Your task to perform on an android device: Find coffee shops on Maps Image 0: 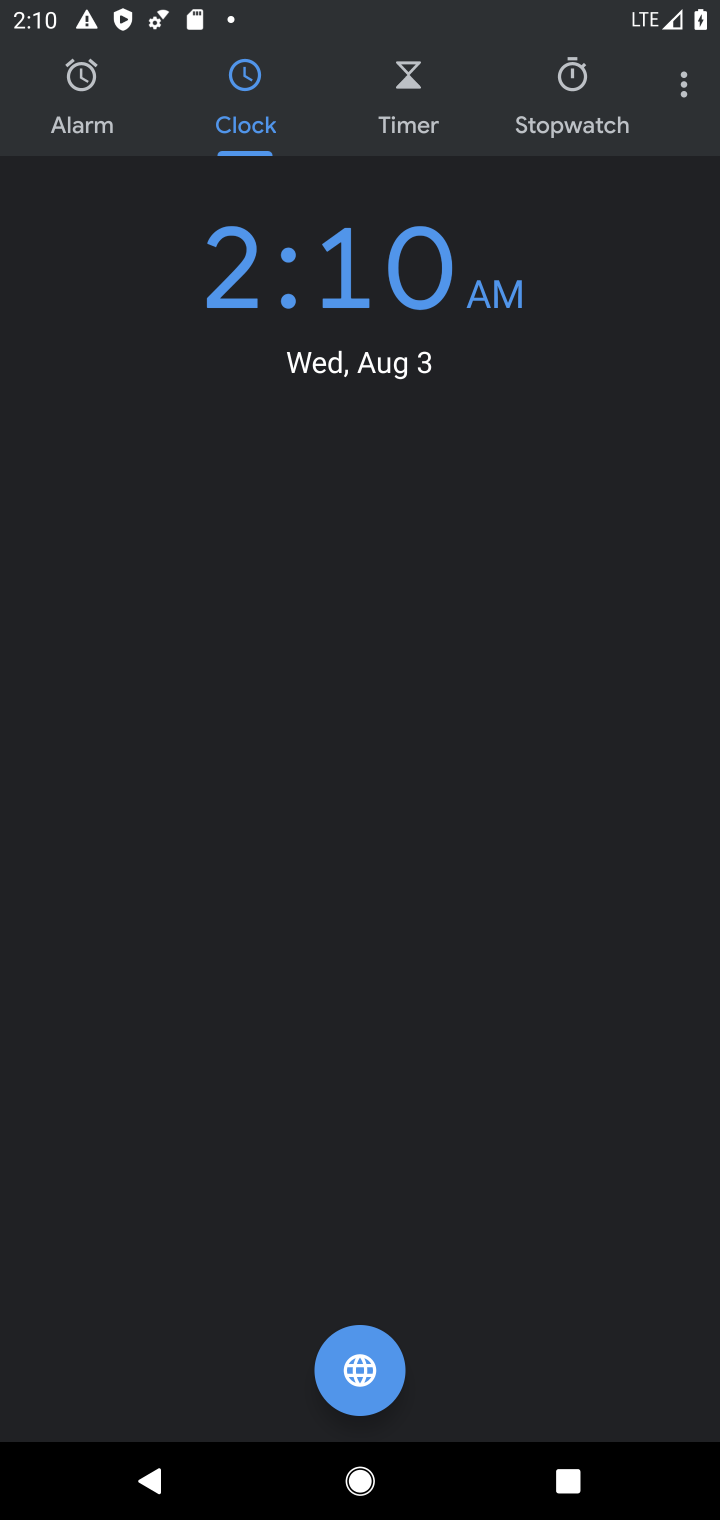
Step 0: press back button
Your task to perform on an android device: Find coffee shops on Maps Image 1: 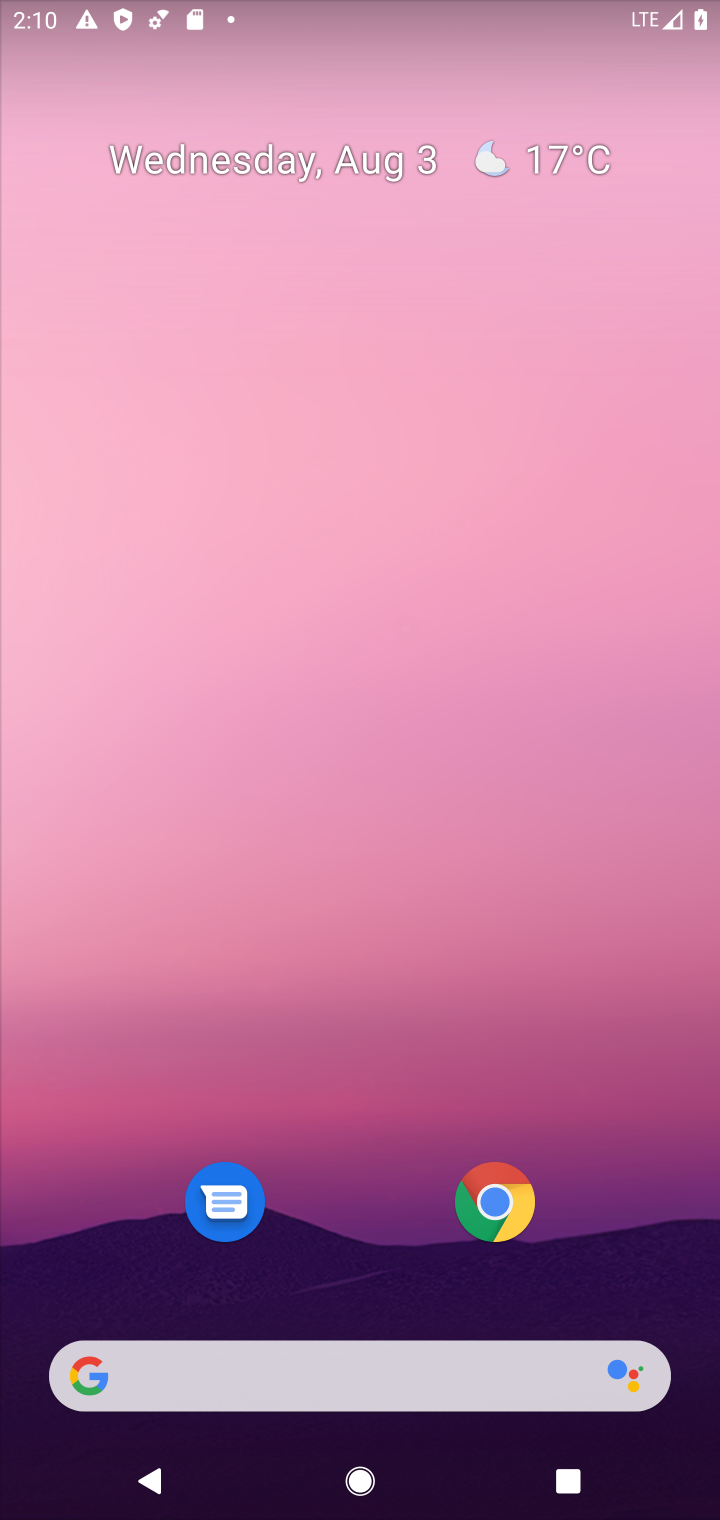
Step 1: drag from (446, 962) to (472, 6)
Your task to perform on an android device: Find coffee shops on Maps Image 2: 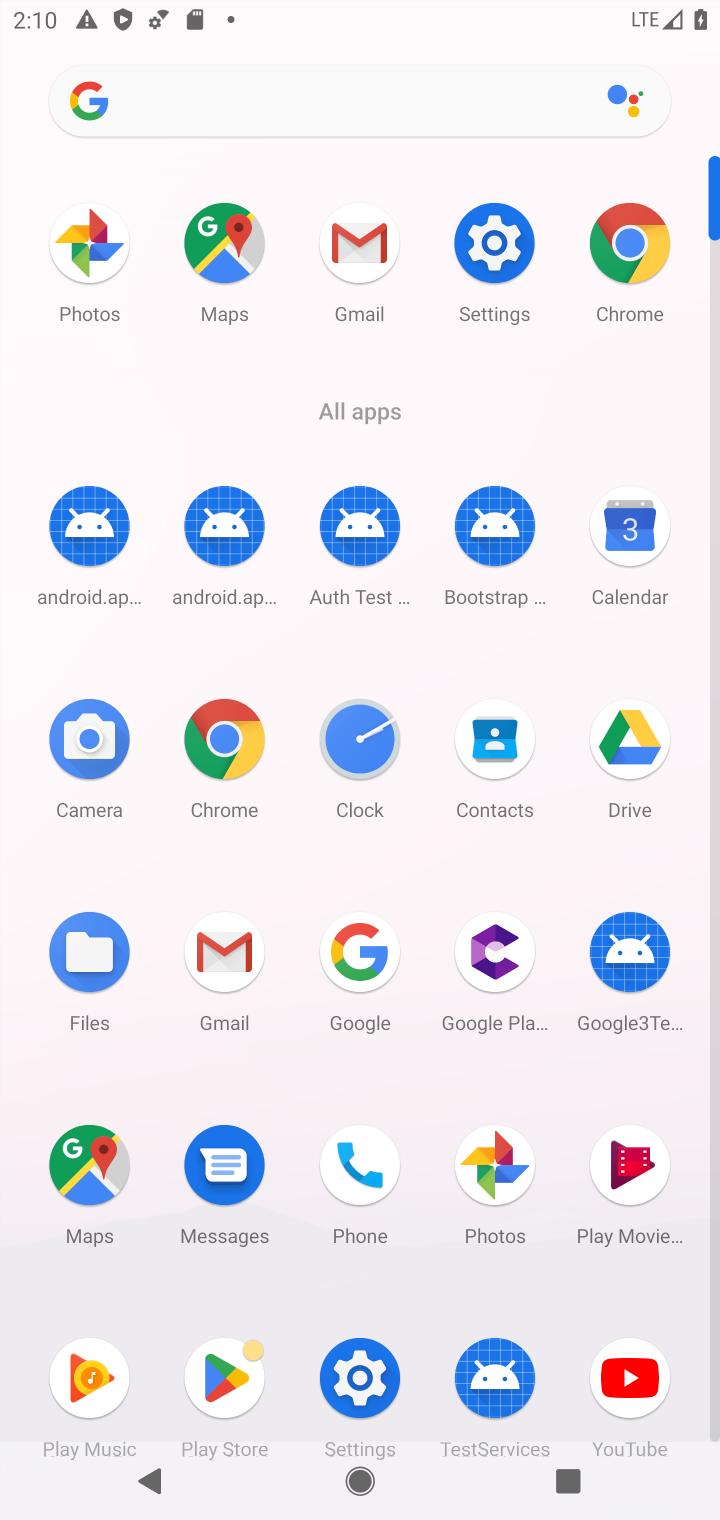
Step 2: click (214, 237)
Your task to perform on an android device: Find coffee shops on Maps Image 3: 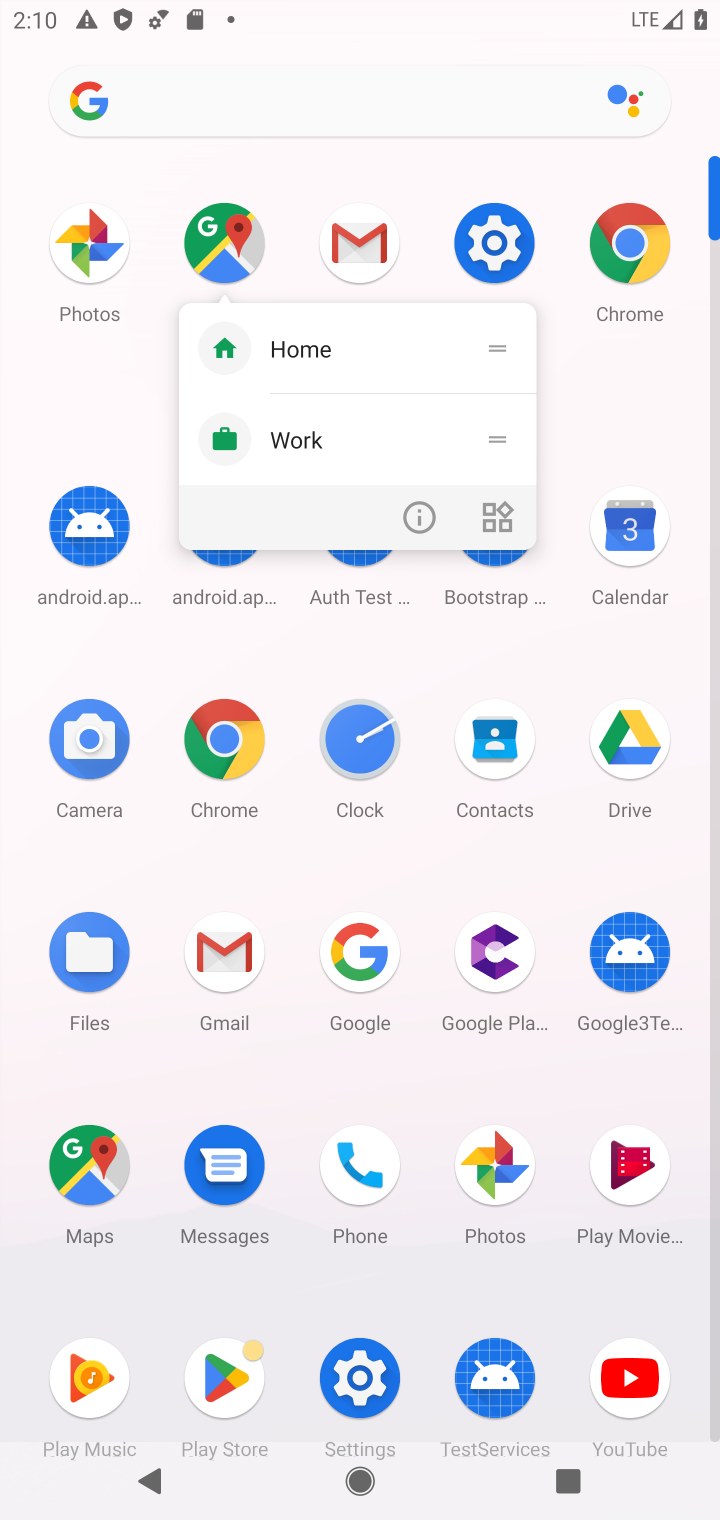
Step 3: click (237, 266)
Your task to perform on an android device: Find coffee shops on Maps Image 4: 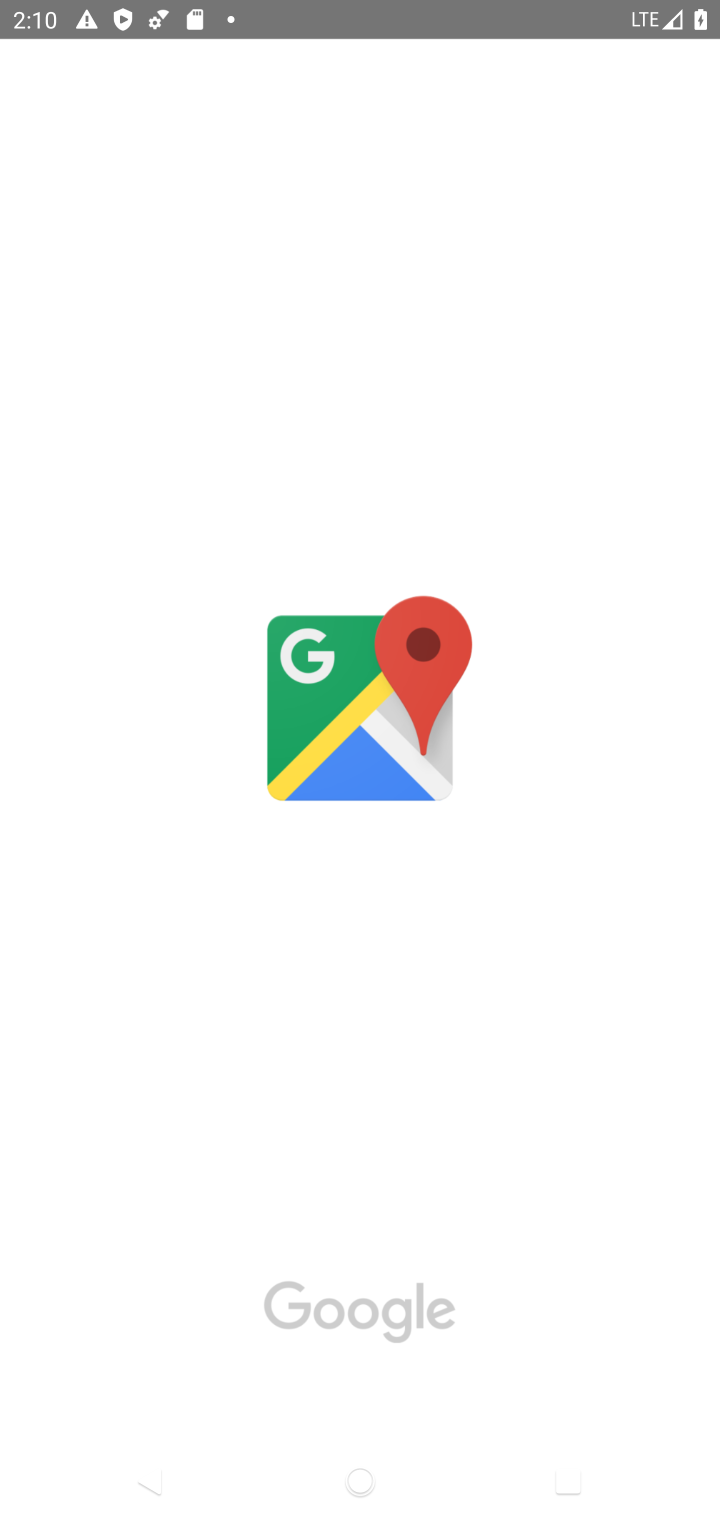
Step 4: task complete